Your task to perform on an android device: Open internet settings Image 0: 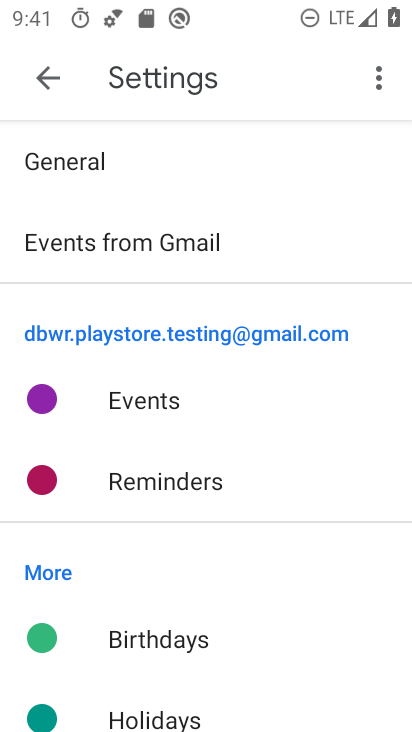
Step 0: press home button
Your task to perform on an android device: Open internet settings Image 1: 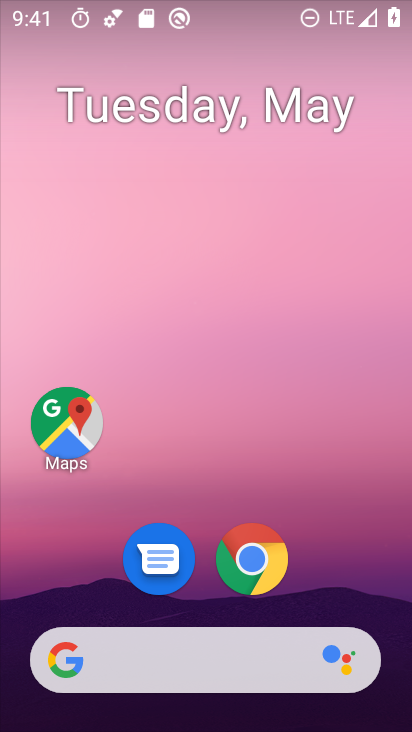
Step 1: drag from (390, 572) to (257, 6)
Your task to perform on an android device: Open internet settings Image 2: 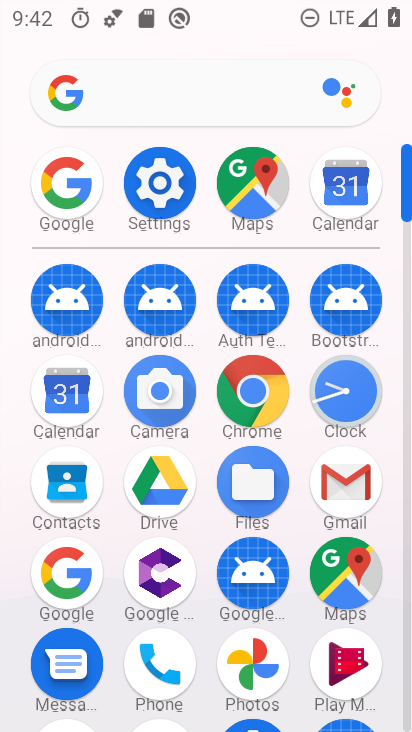
Step 2: click (168, 195)
Your task to perform on an android device: Open internet settings Image 3: 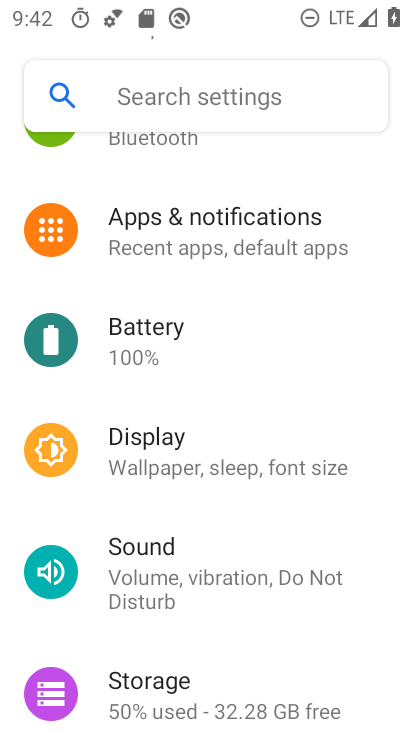
Step 3: drag from (218, 175) to (270, 707)
Your task to perform on an android device: Open internet settings Image 4: 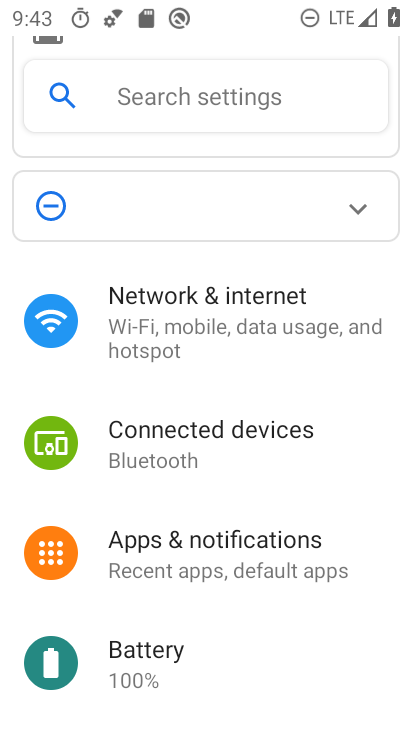
Step 4: click (254, 330)
Your task to perform on an android device: Open internet settings Image 5: 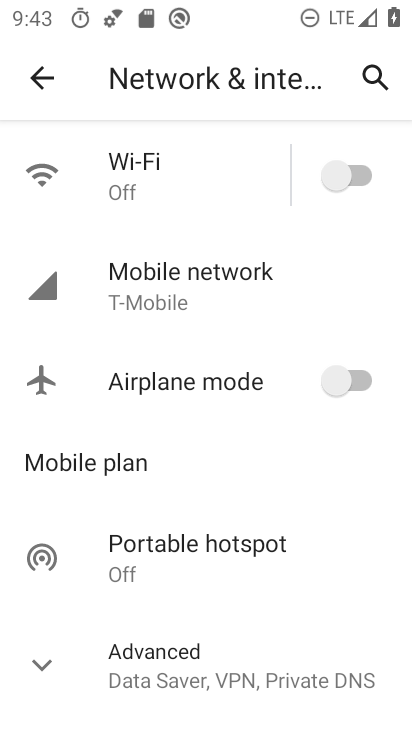
Step 5: task complete